Your task to perform on an android device: toggle location history Image 0: 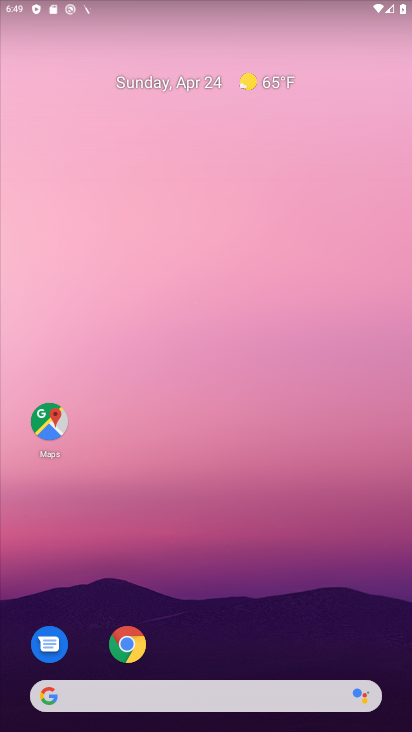
Step 0: press home button
Your task to perform on an android device: toggle location history Image 1: 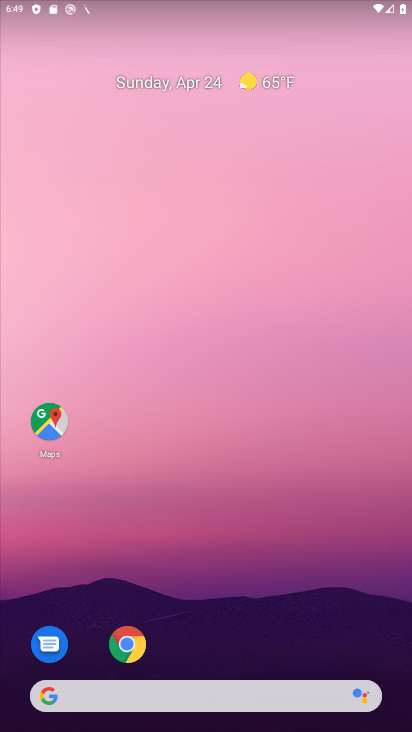
Step 1: drag from (217, 603) to (270, 86)
Your task to perform on an android device: toggle location history Image 2: 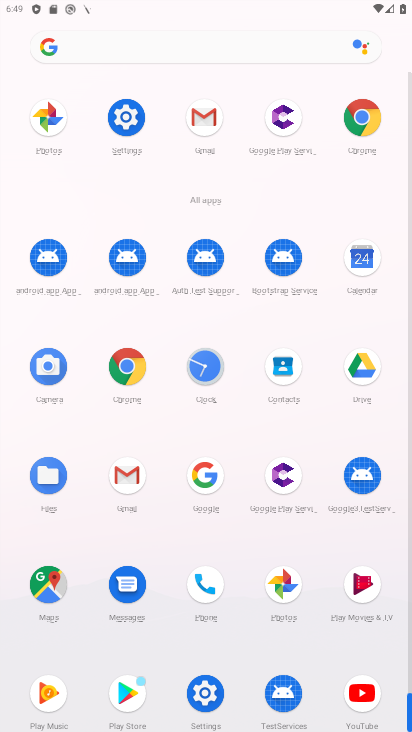
Step 2: click (125, 111)
Your task to perform on an android device: toggle location history Image 3: 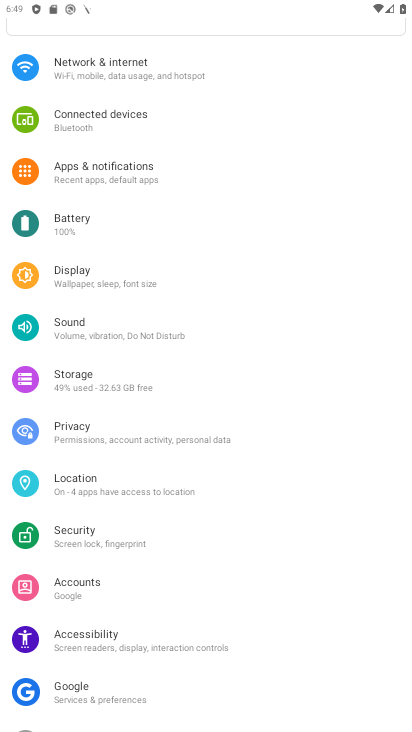
Step 3: click (104, 473)
Your task to perform on an android device: toggle location history Image 4: 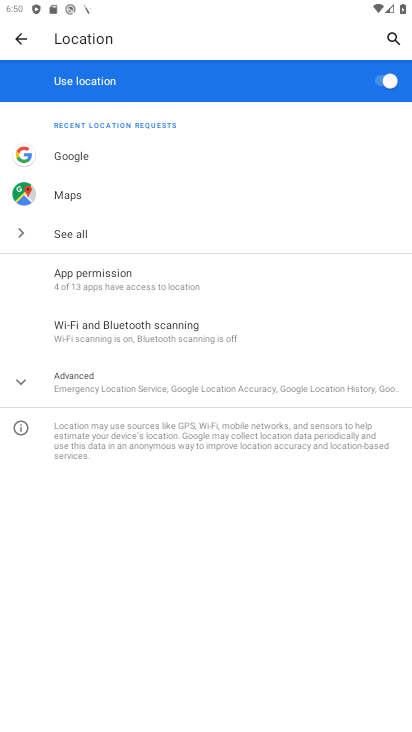
Step 4: click (101, 378)
Your task to perform on an android device: toggle location history Image 5: 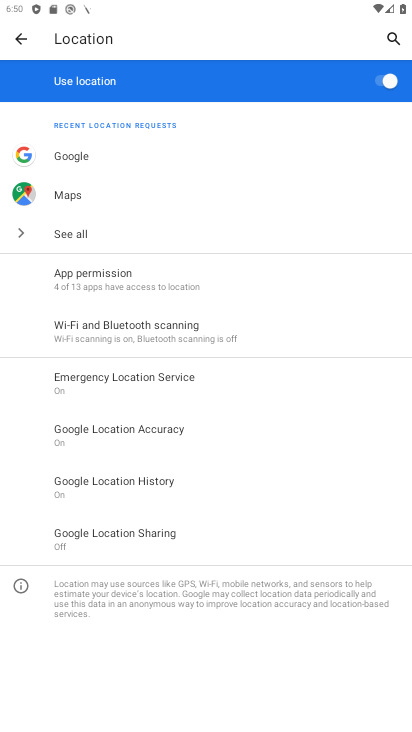
Step 5: click (75, 485)
Your task to perform on an android device: toggle location history Image 6: 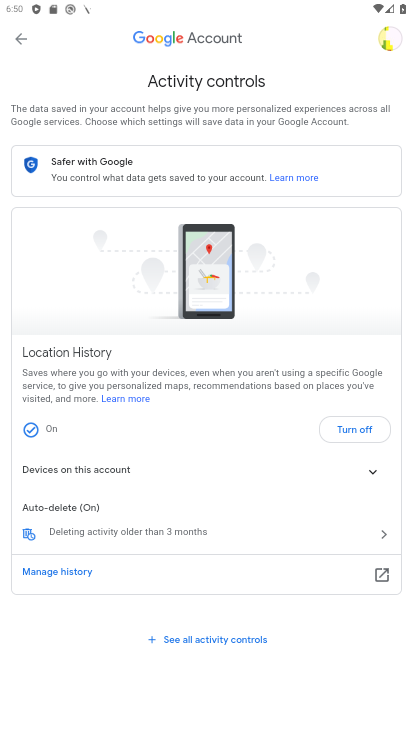
Step 6: click (354, 430)
Your task to perform on an android device: toggle location history Image 7: 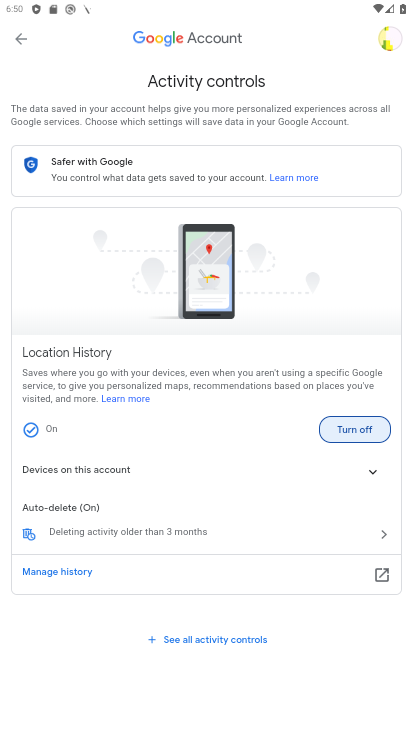
Step 7: click (356, 431)
Your task to perform on an android device: toggle location history Image 8: 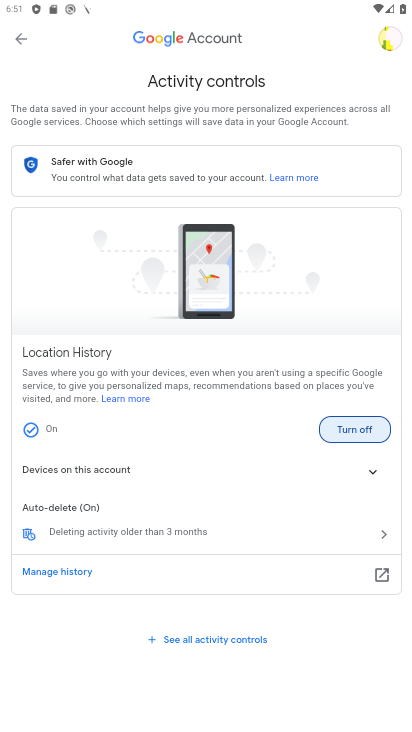
Step 8: click (351, 429)
Your task to perform on an android device: toggle location history Image 9: 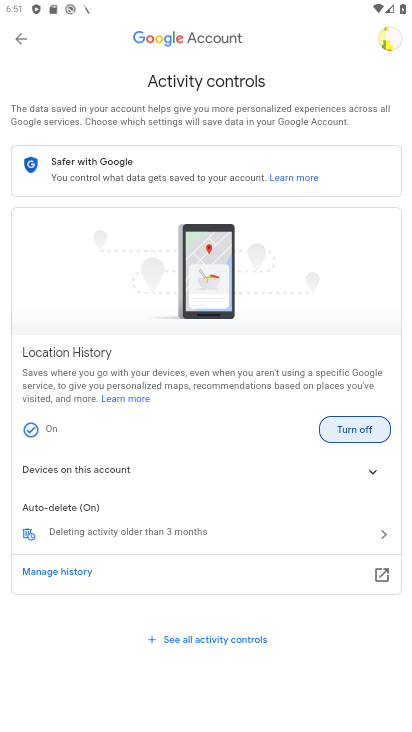
Step 9: task complete